Your task to perform on an android device: Open Wikipedia Image 0: 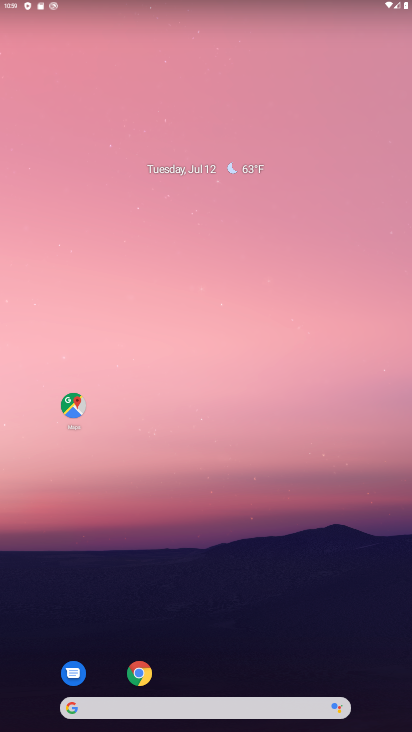
Step 0: click (309, 164)
Your task to perform on an android device: Open Wikipedia Image 1: 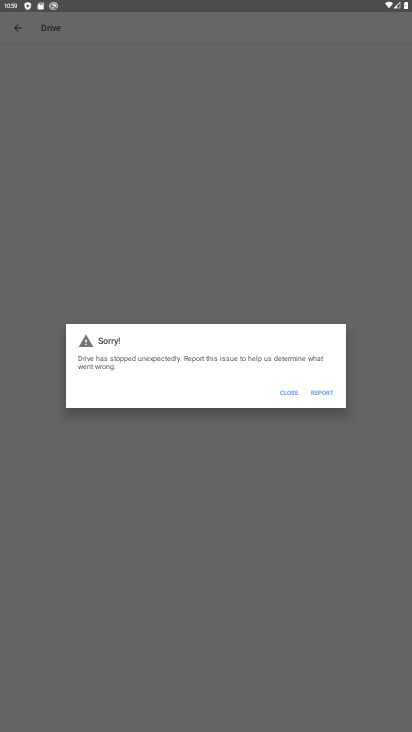
Step 1: press home button
Your task to perform on an android device: Open Wikipedia Image 2: 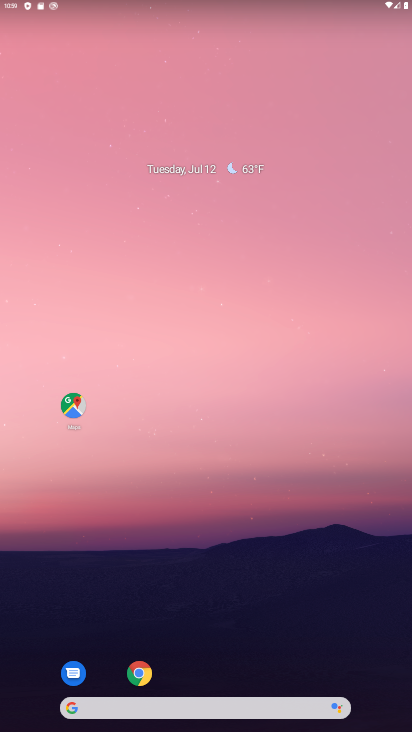
Step 2: drag from (198, 688) to (268, 132)
Your task to perform on an android device: Open Wikipedia Image 3: 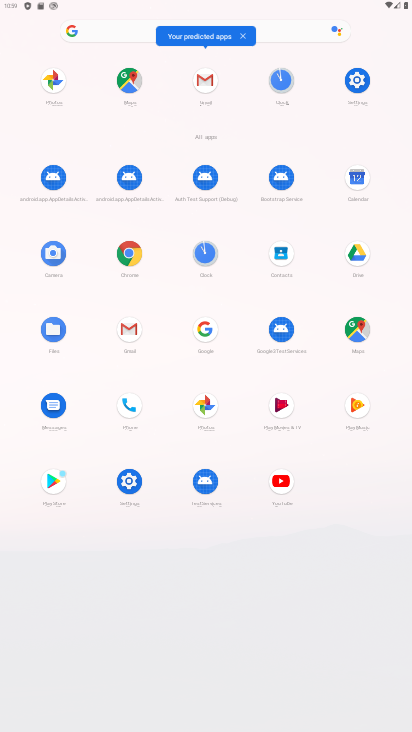
Step 3: click (129, 265)
Your task to perform on an android device: Open Wikipedia Image 4: 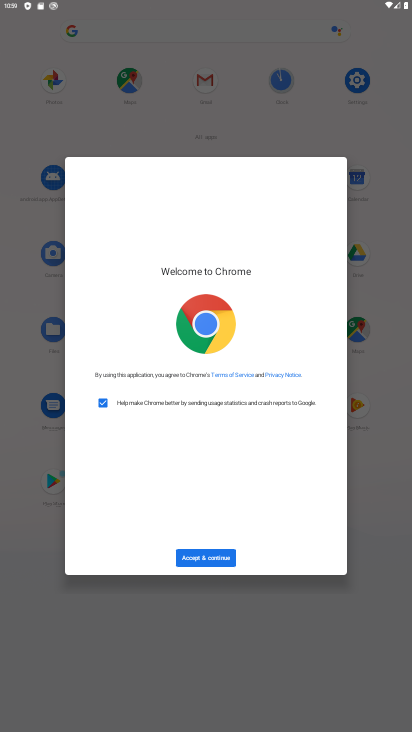
Step 4: click (223, 556)
Your task to perform on an android device: Open Wikipedia Image 5: 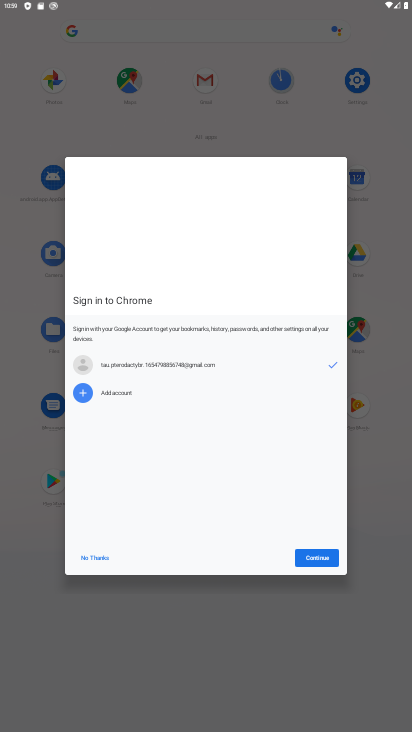
Step 5: click (318, 554)
Your task to perform on an android device: Open Wikipedia Image 6: 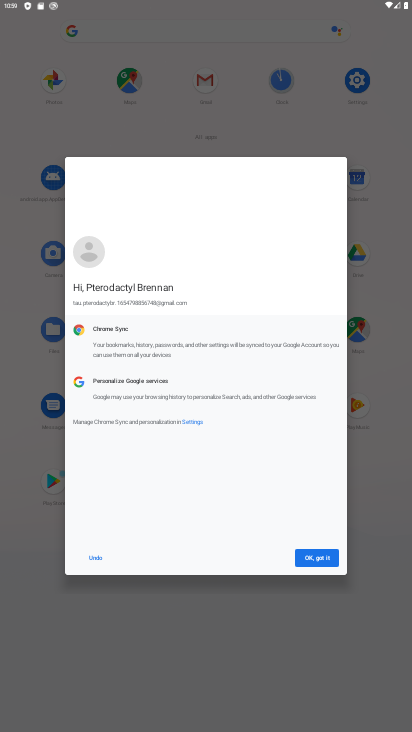
Step 6: click (337, 552)
Your task to perform on an android device: Open Wikipedia Image 7: 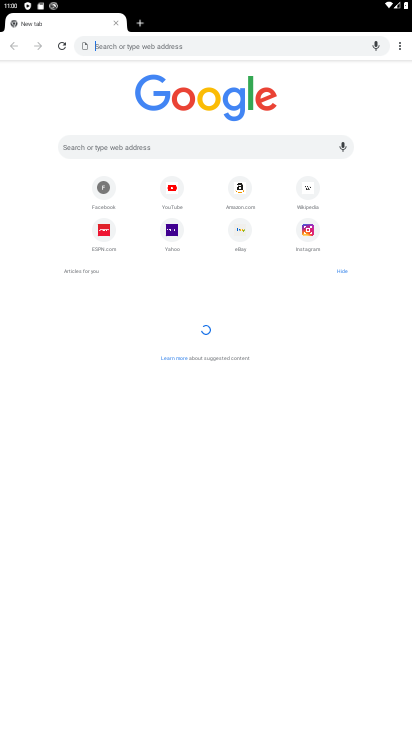
Step 7: click (313, 194)
Your task to perform on an android device: Open Wikipedia Image 8: 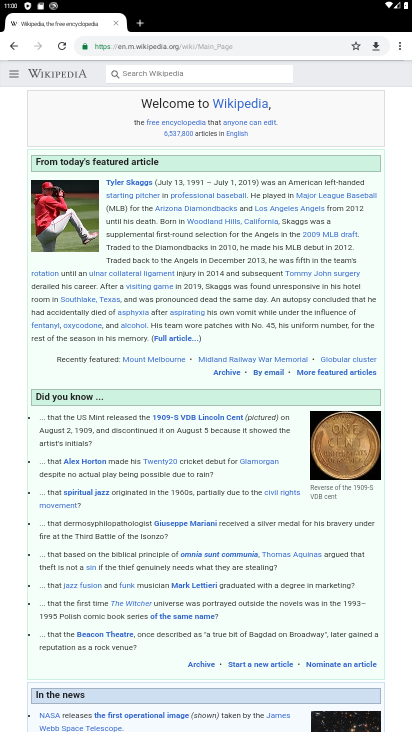
Step 8: task complete